Your task to perform on an android device: turn off smart reply in the gmail app Image 0: 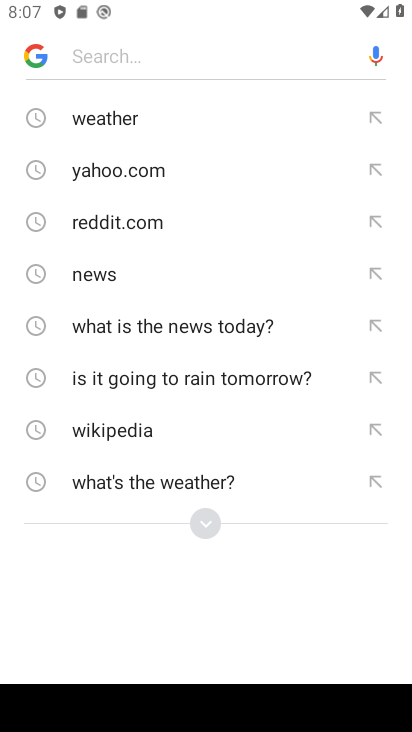
Step 0: press home button
Your task to perform on an android device: turn off smart reply in the gmail app Image 1: 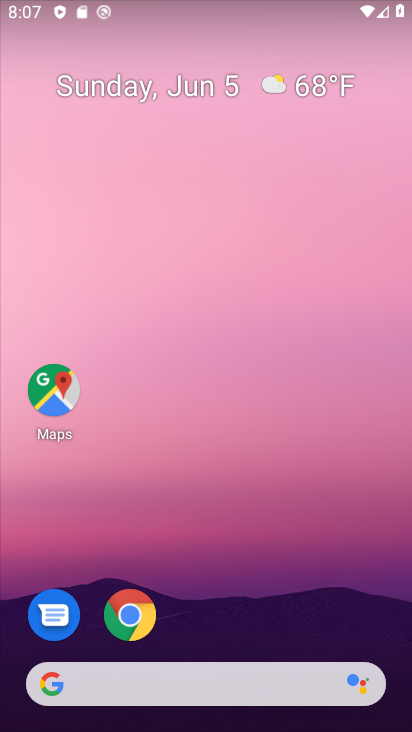
Step 1: drag from (224, 682) to (310, 122)
Your task to perform on an android device: turn off smart reply in the gmail app Image 2: 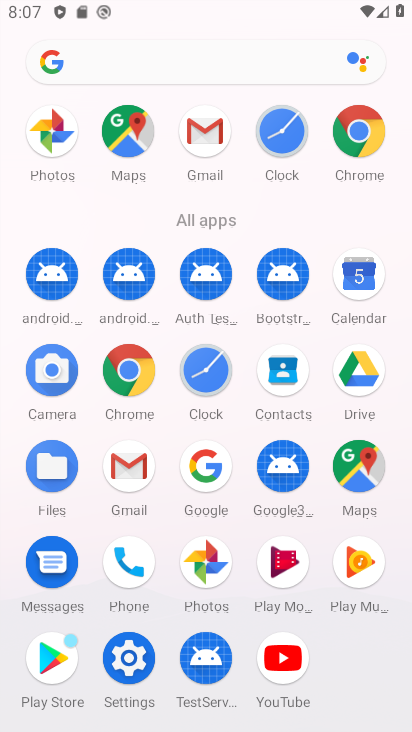
Step 2: click (123, 471)
Your task to perform on an android device: turn off smart reply in the gmail app Image 3: 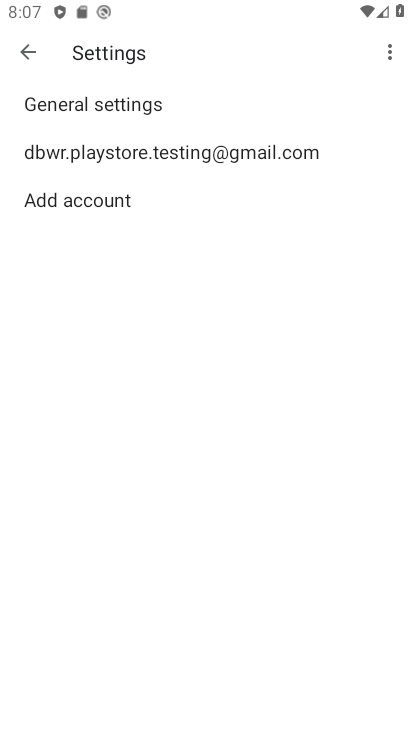
Step 3: click (85, 154)
Your task to perform on an android device: turn off smart reply in the gmail app Image 4: 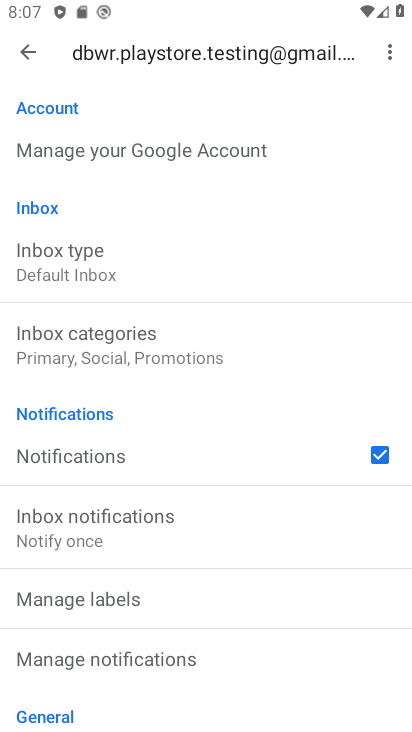
Step 4: drag from (123, 505) to (119, 157)
Your task to perform on an android device: turn off smart reply in the gmail app Image 5: 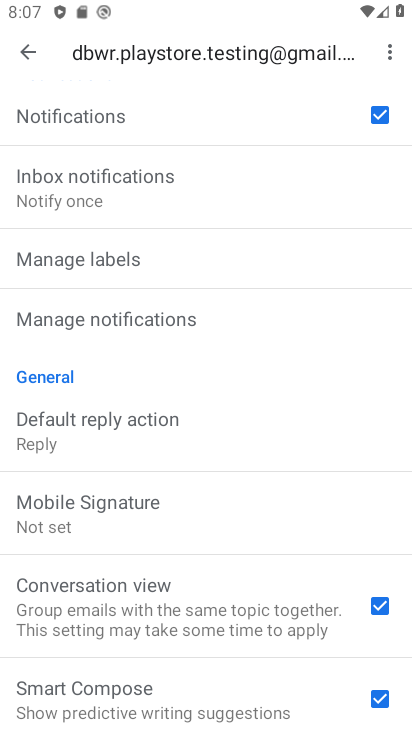
Step 5: drag from (106, 541) to (121, 227)
Your task to perform on an android device: turn off smart reply in the gmail app Image 6: 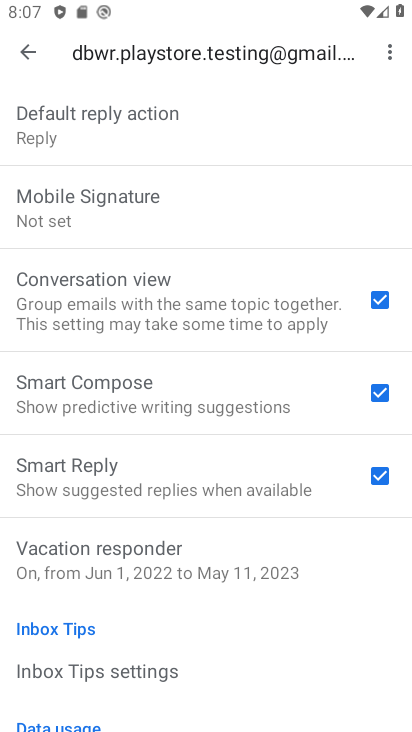
Step 6: click (367, 474)
Your task to perform on an android device: turn off smart reply in the gmail app Image 7: 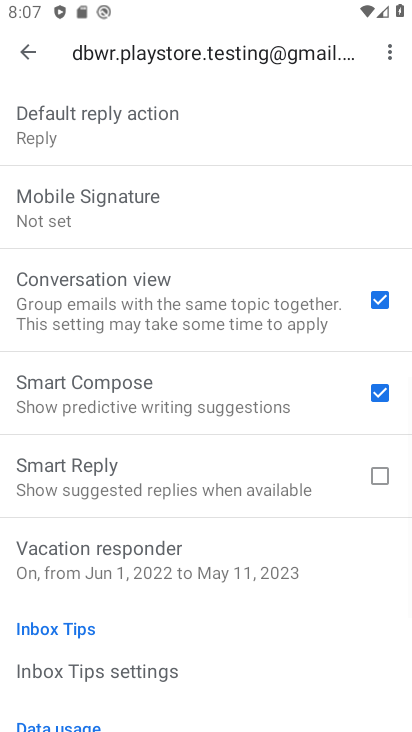
Step 7: task complete